Your task to perform on an android device: Open notification settings Image 0: 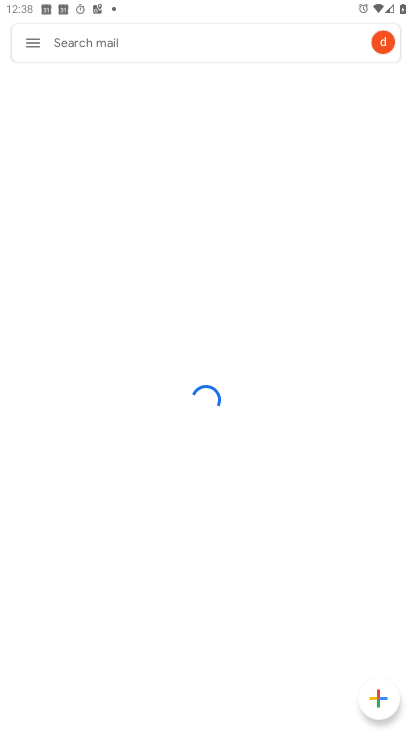
Step 0: press home button
Your task to perform on an android device: Open notification settings Image 1: 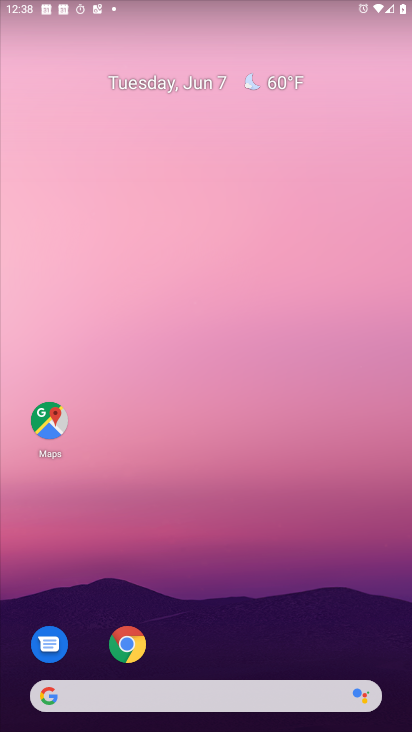
Step 1: drag from (133, 726) to (303, 4)
Your task to perform on an android device: Open notification settings Image 2: 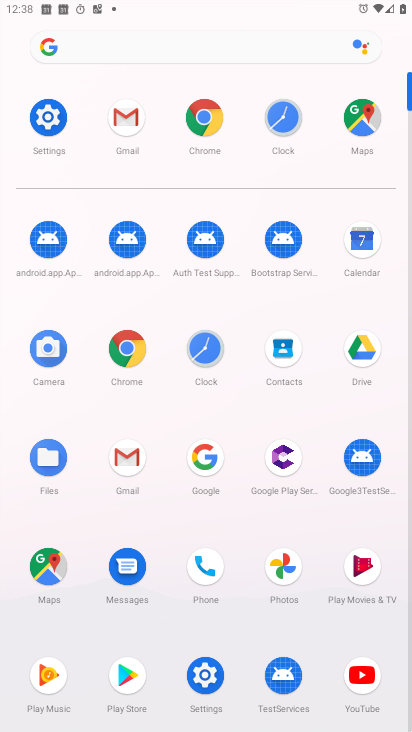
Step 2: click (45, 118)
Your task to perform on an android device: Open notification settings Image 3: 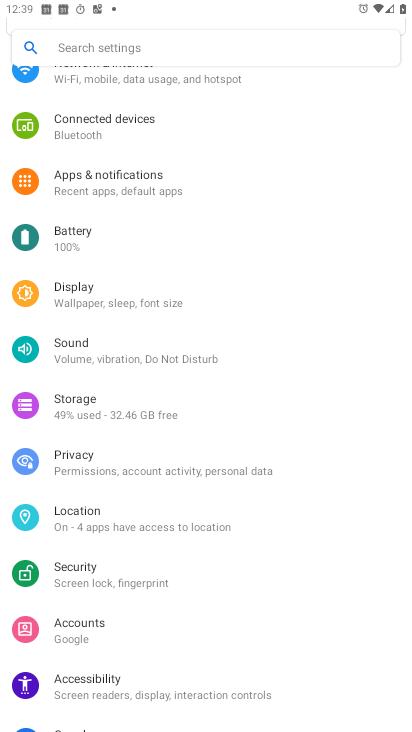
Step 3: click (126, 188)
Your task to perform on an android device: Open notification settings Image 4: 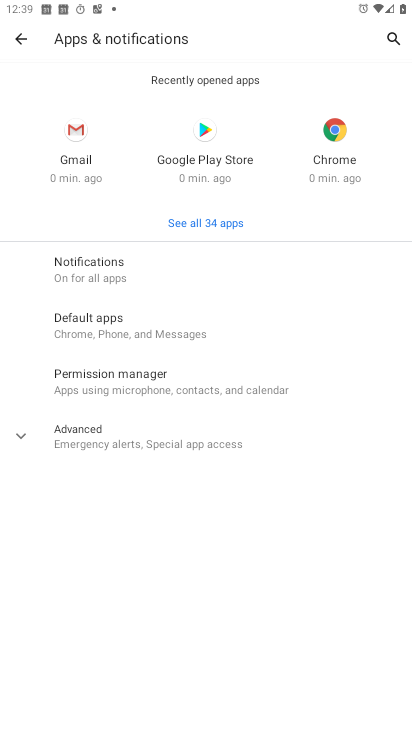
Step 4: click (130, 273)
Your task to perform on an android device: Open notification settings Image 5: 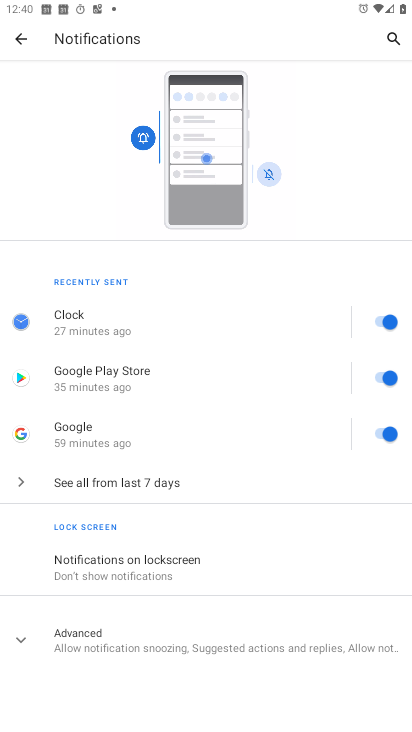
Step 5: task complete